Your task to perform on an android device: turn off sleep mode Image 0: 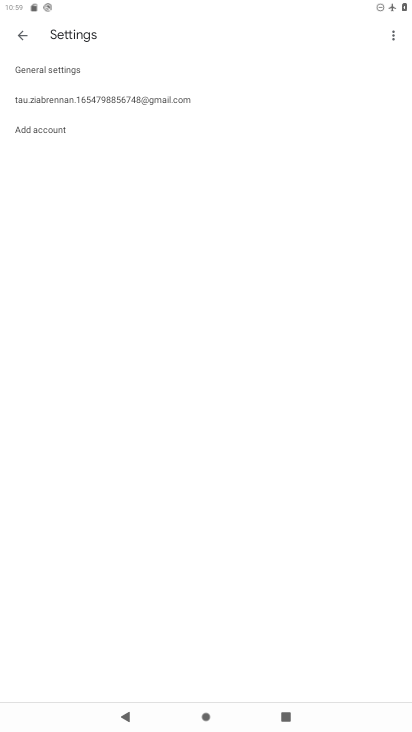
Step 0: press home button
Your task to perform on an android device: turn off sleep mode Image 1: 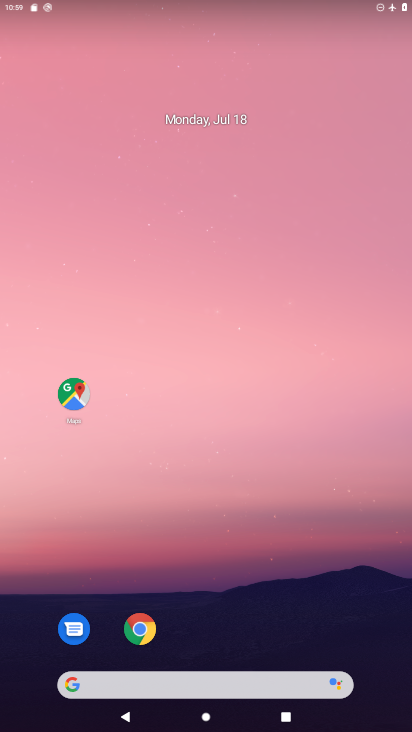
Step 1: drag from (298, 609) to (161, 165)
Your task to perform on an android device: turn off sleep mode Image 2: 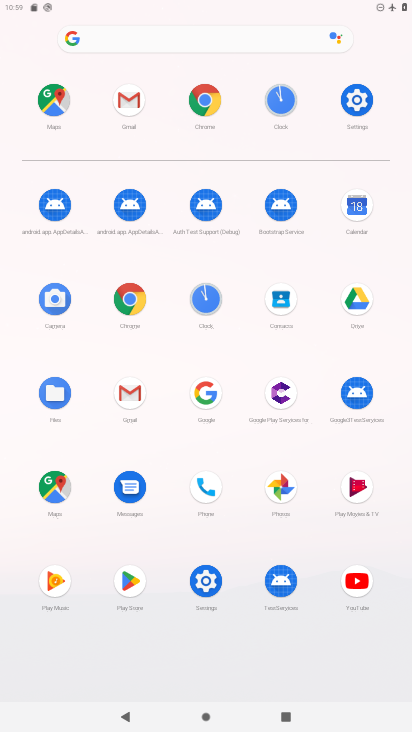
Step 2: click (370, 102)
Your task to perform on an android device: turn off sleep mode Image 3: 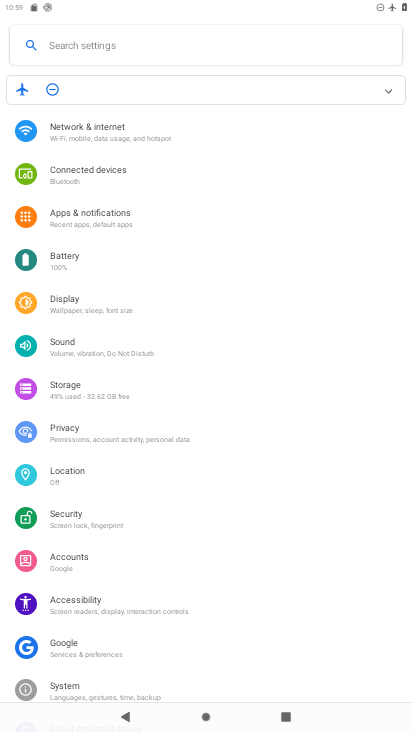
Step 3: click (84, 307)
Your task to perform on an android device: turn off sleep mode Image 4: 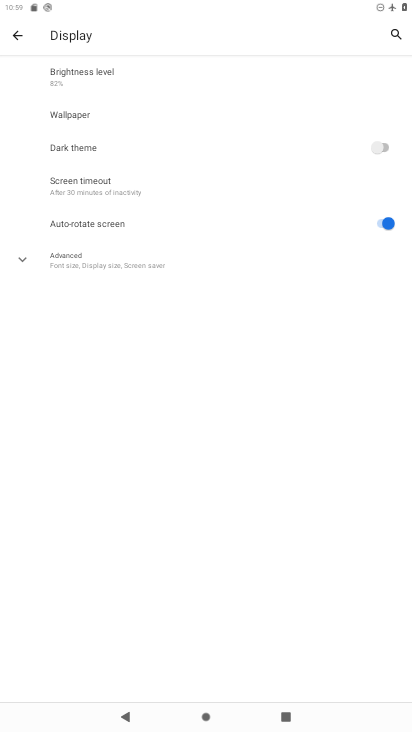
Step 4: click (102, 191)
Your task to perform on an android device: turn off sleep mode Image 5: 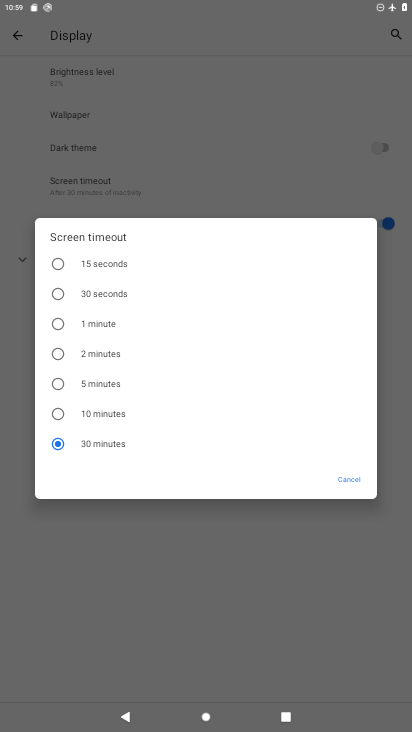
Step 5: task complete